Your task to perform on an android device: turn on notifications settings in the gmail app Image 0: 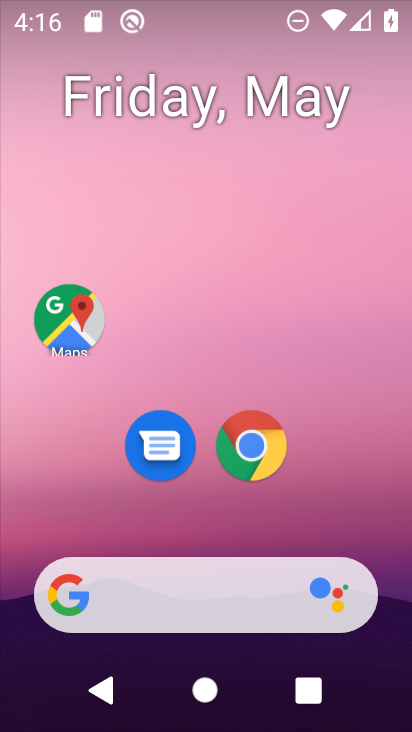
Step 0: drag from (197, 522) to (165, 1)
Your task to perform on an android device: turn on notifications settings in the gmail app Image 1: 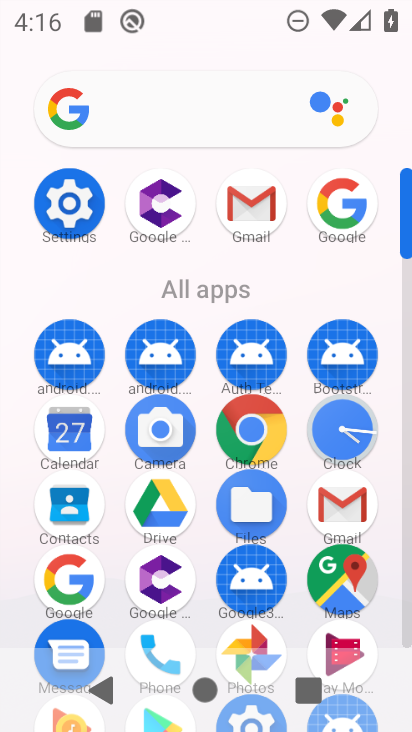
Step 1: click (330, 504)
Your task to perform on an android device: turn on notifications settings in the gmail app Image 2: 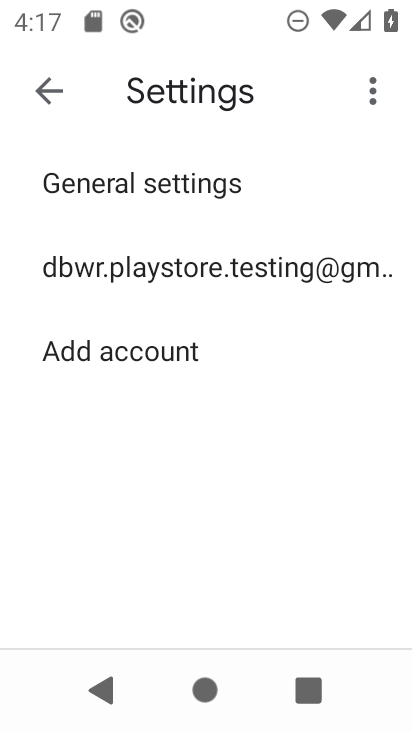
Step 2: click (195, 216)
Your task to perform on an android device: turn on notifications settings in the gmail app Image 3: 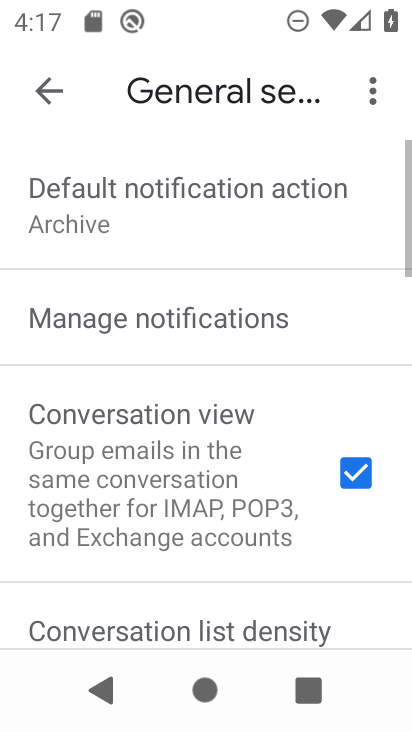
Step 3: click (201, 275)
Your task to perform on an android device: turn on notifications settings in the gmail app Image 4: 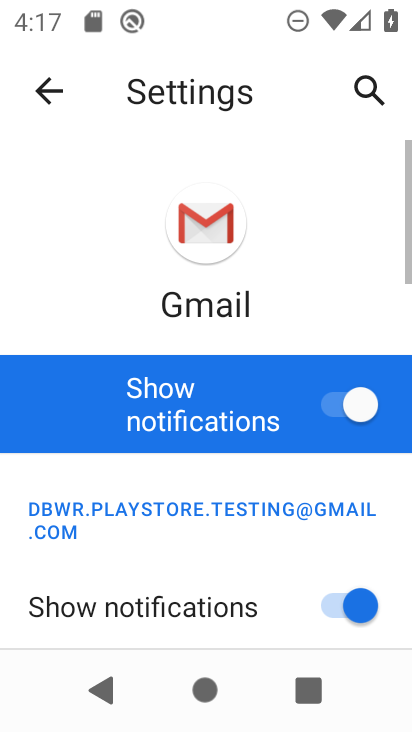
Step 4: click (39, 91)
Your task to perform on an android device: turn on notifications settings in the gmail app Image 5: 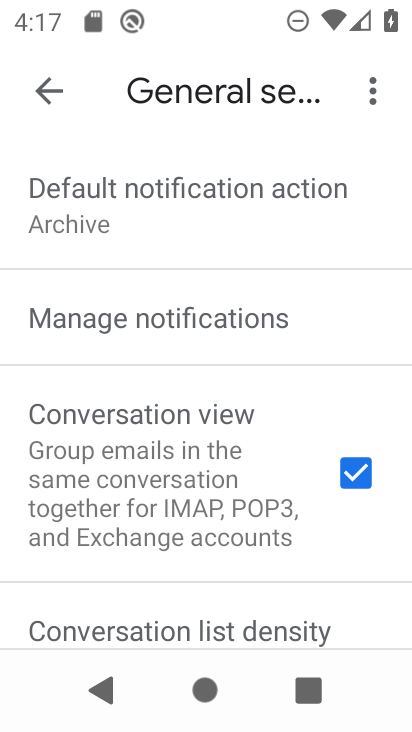
Step 5: click (195, 97)
Your task to perform on an android device: turn on notifications settings in the gmail app Image 6: 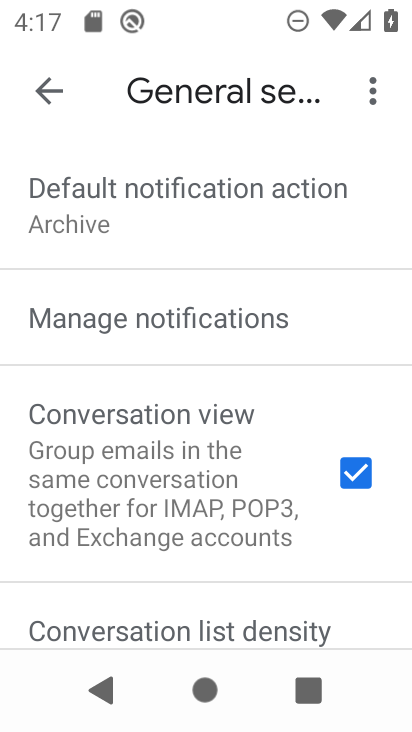
Step 6: click (167, 206)
Your task to perform on an android device: turn on notifications settings in the gmail app Image 7: 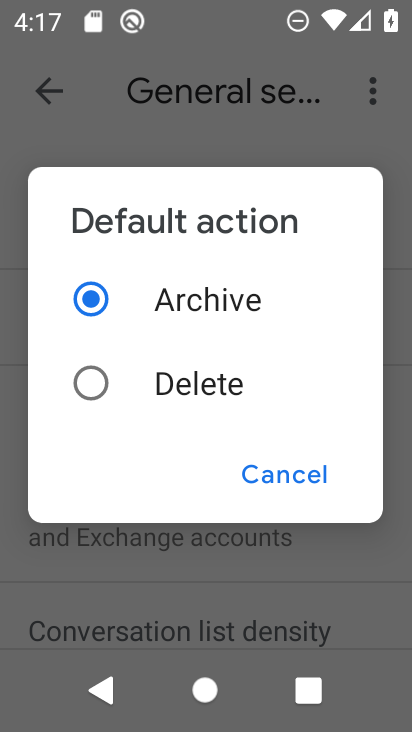
Step 7: click (297, 477)
Your task to perform on an android device: turn on notifications settings in the gmail app Image 8: 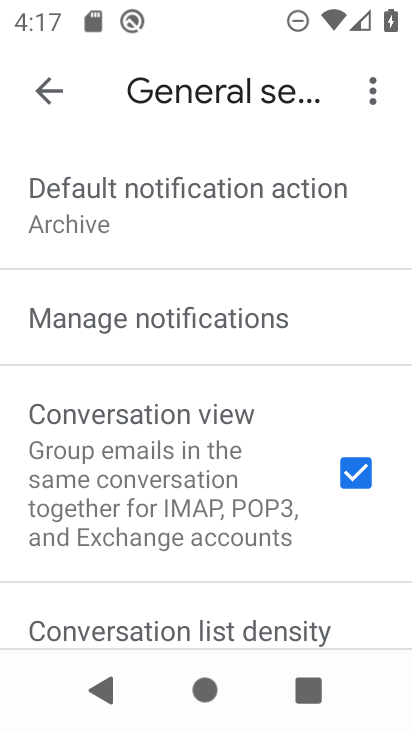
Step 8: click (161, 324)
Your task to perform on an android device: turn on notifications settings in the gmail app Image 9: 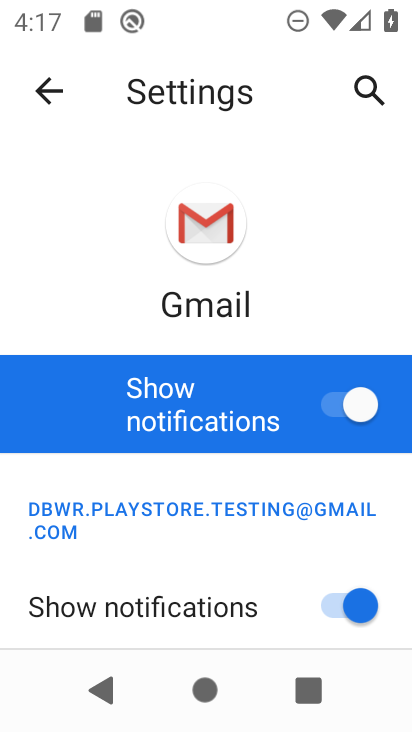
Step 9: click (330, 409)
Your task to perform on an android device: turn on notifications settings in the gmail app Image 10: 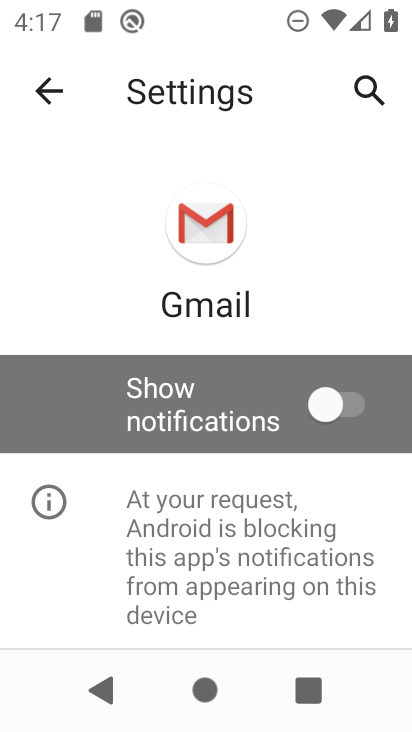
Step 10: task complete